Your task to perform on an android device: Turn off the flashlight Image 0: 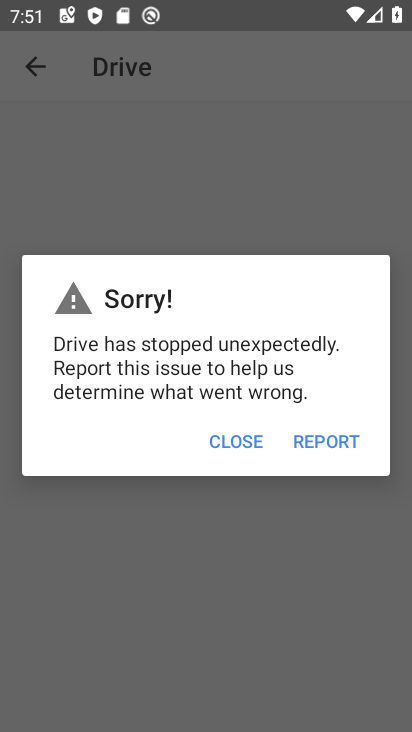
Step 0: press home button
Your task to perform on an android device: Turn off the flashlight Image 1: 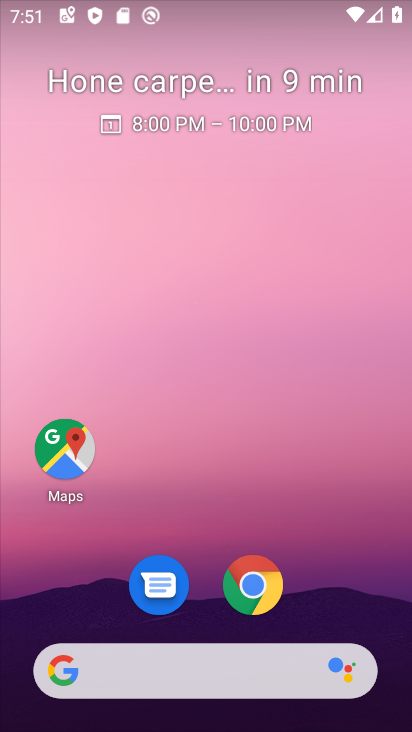
Step 1: drag from (312, 494) to (257, 9)
Your task to perform on an android device: Turn off the flashlight Image 2: 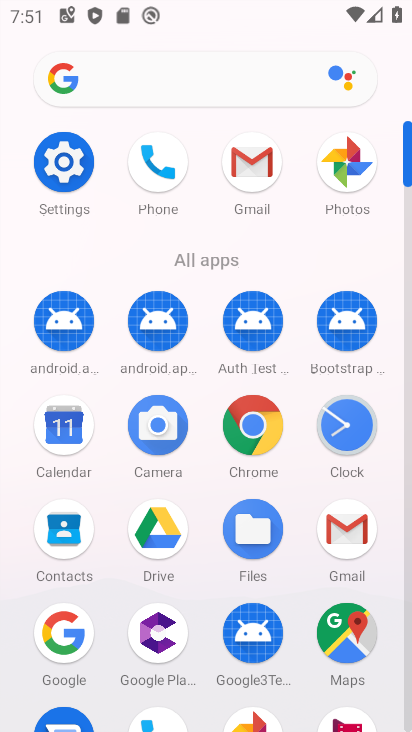
Step 2: click (79, 156)
Your task to perform on an android device: Turn off the flashlight Image 3: 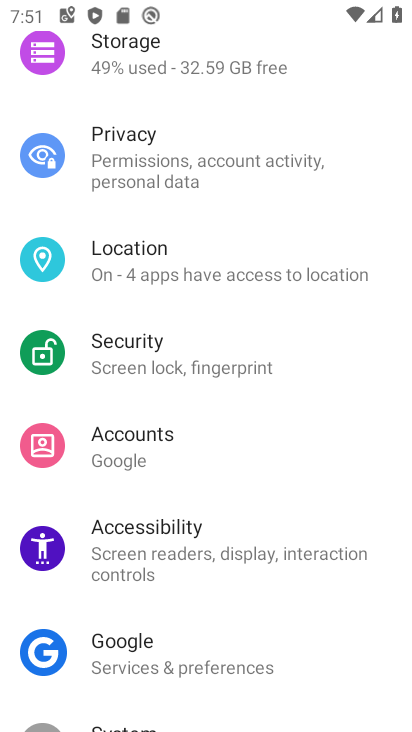
Step 3: drag from (234, 117) to (234, 607)
Your task to perform on an android device: Turn off the flashlight Image 4: 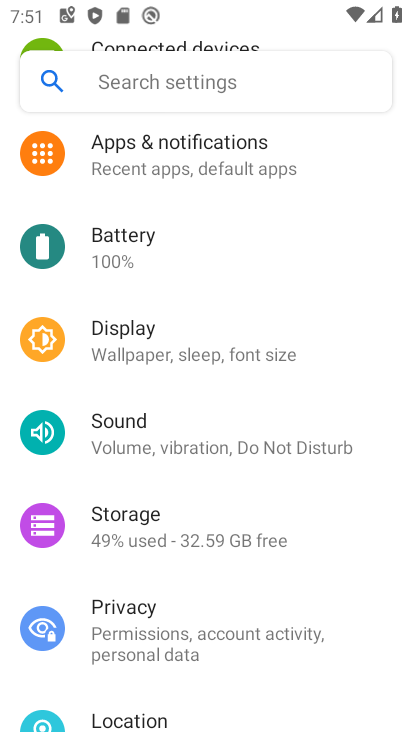
Step 4: drag from (216, 190) to (229, 606)
Your task to perform on an android device: Turn off the flashlight Image 5: 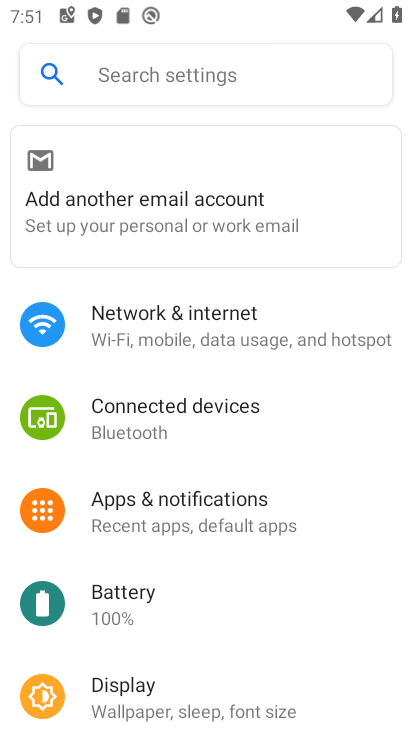
Step 5: click (197, 70)
Your task to perform on an android device: Turn off the flashlight Image 6: 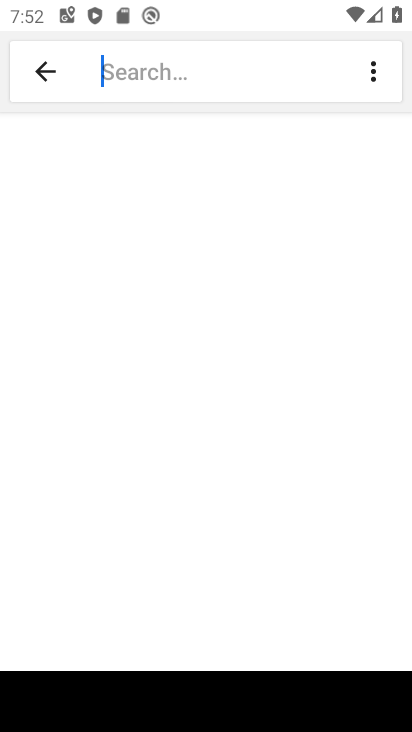
Step 6: type "Flashlight"
Your task to perform on an android device: Turn off the flashlight Image 7: 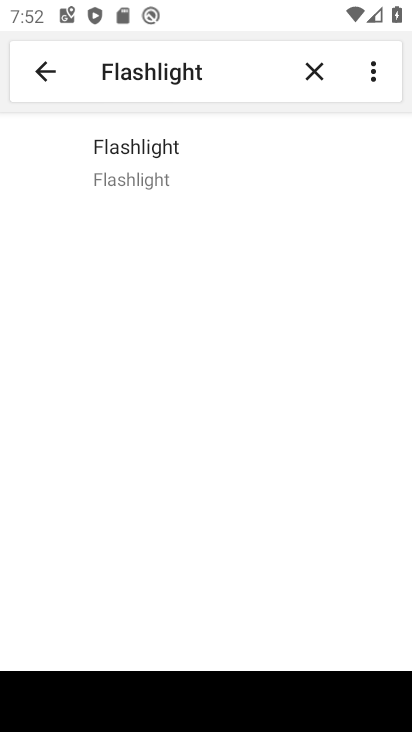
Step 7: click (148, 170)
Your task to perform on an android device: Turn off the flashlight Image 8: 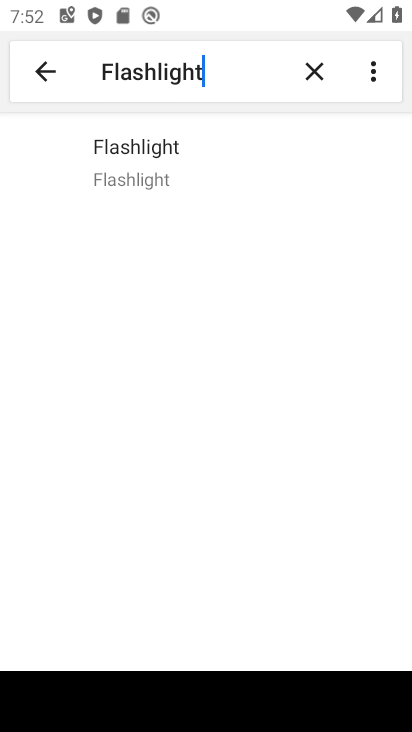
Step 8: task complete